Your task to perform on an android device: Open maps Image 0: 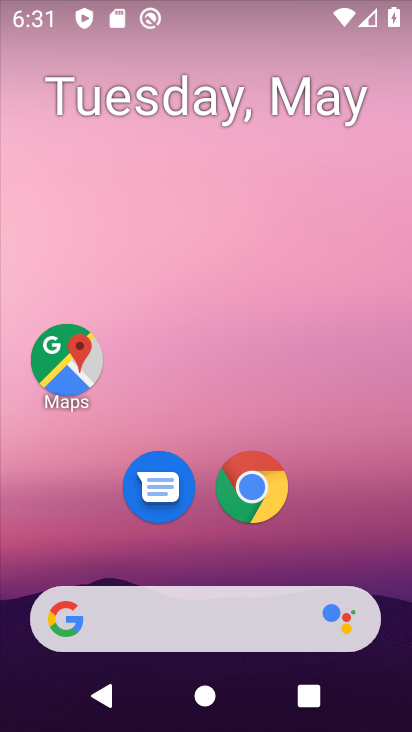
Step 0: click (44, 359)
Your task to perform on an android device: Open maps Image 1: 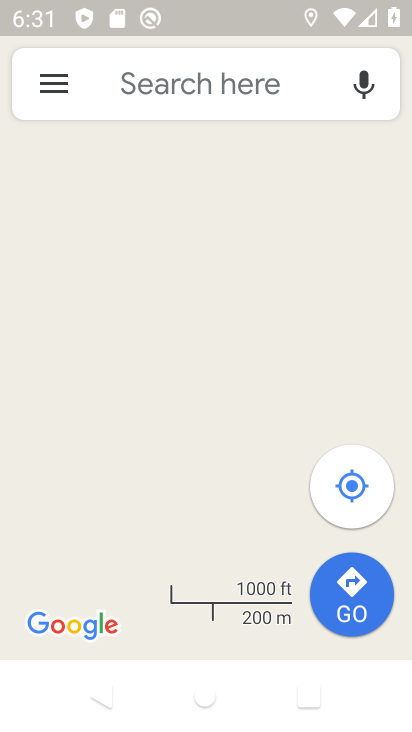
Step 1: task complete